Your task to perform on an android device: Play the last video I watched on Youtube Image 0: 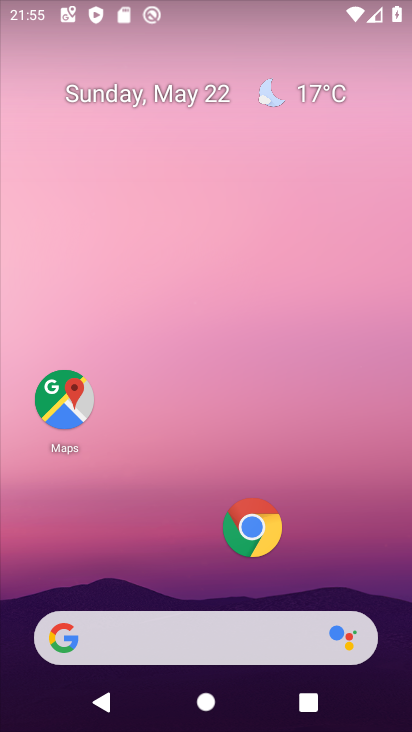
Step 0: drag from (351, 556) to (125, 2)
Your task to perform on an android device: Play the last video I watched on Youtube Image 1: 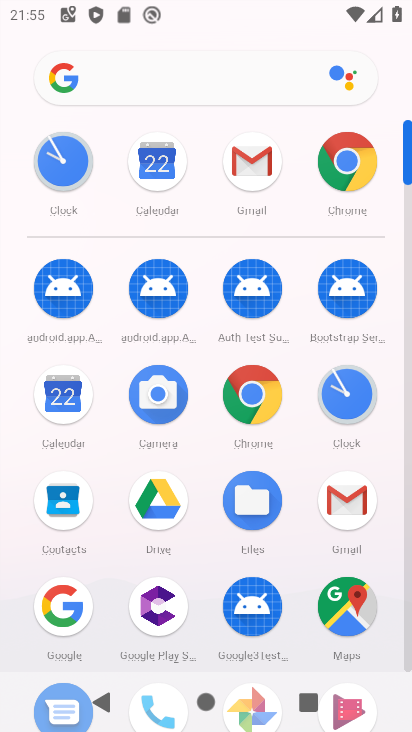
Step 1: click (409, 668)
Your task to perform on an android device: Play the last video I watched on Youtube Image 2: 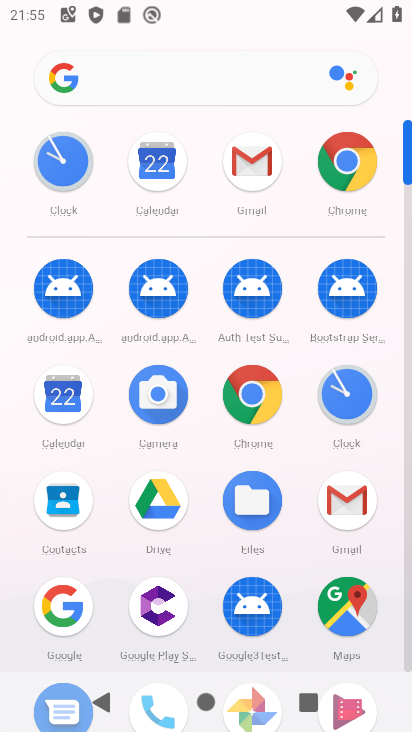
Step 2: click (409, 668)
Your task to perform on an android device: Play the last video I watched on Youtube Image 3: 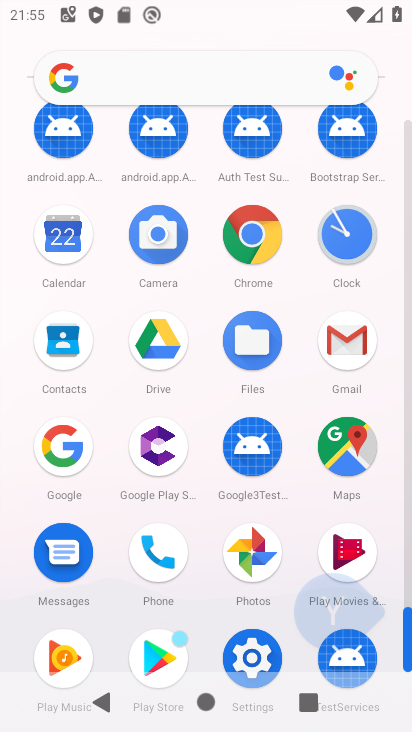
Step 3: click (409, 668)
Your task to perform on an android device: Play the last video I watched on Youtube Image 4: 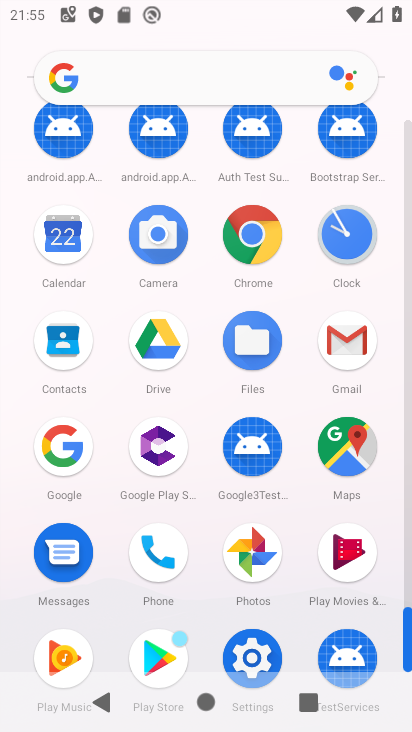
Step 4: click (409, 668)
Your task to perform on an android device: Play the last video I watched on Youtube Image 5: 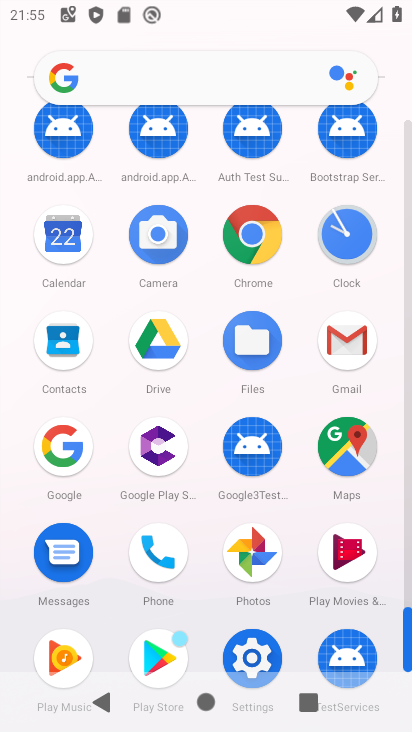
Step 5: click (409, 668)
Your task to perform on an android device: Play the last video I watched on Youtube Image 6: 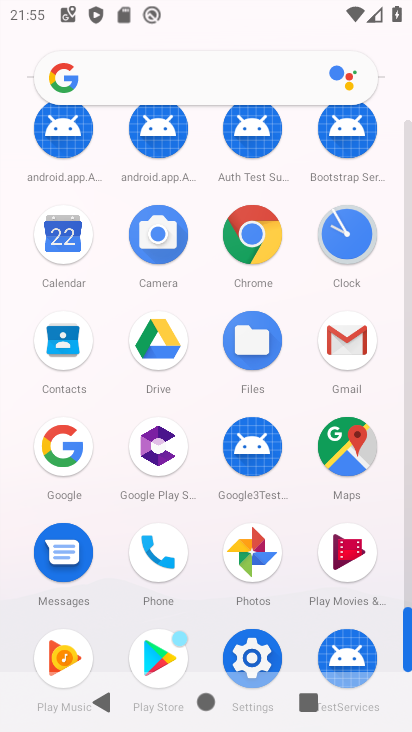
Step 6: drag from (214, 591) to (189, 254)
Your task to perform on an android device: Play the last video I watched on Youtube Image 7: 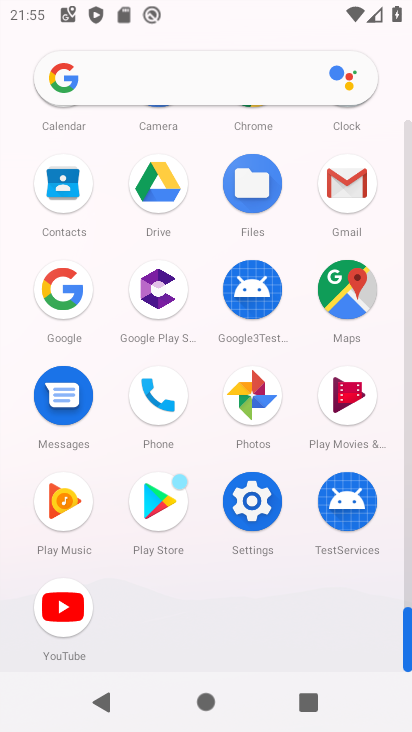
Step 7: click (60, 611)
Your task to perform on an android device: Play the last video I watched on Youtube Image 8: 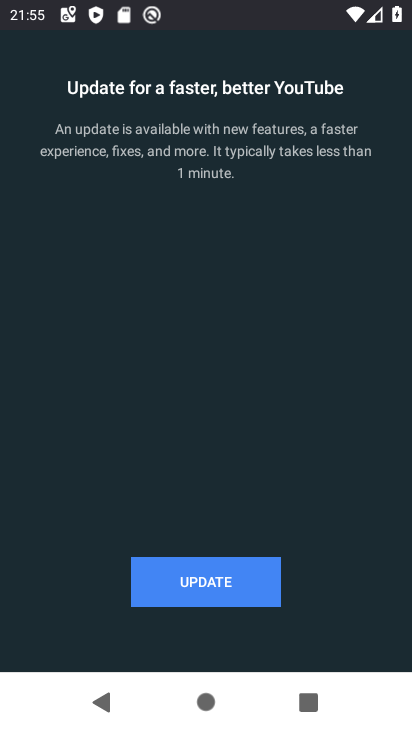
Step 8: click (212, 586)
Your task to perform on an android device: Play the last video I watched on Youtube Image 9: 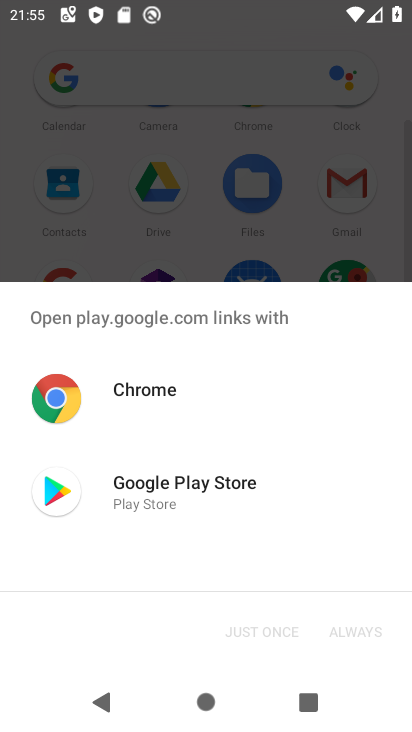
Step 9: click (144, 486)
Your task to perform on an android device: Play the last video I watched on Youtube Image 10: 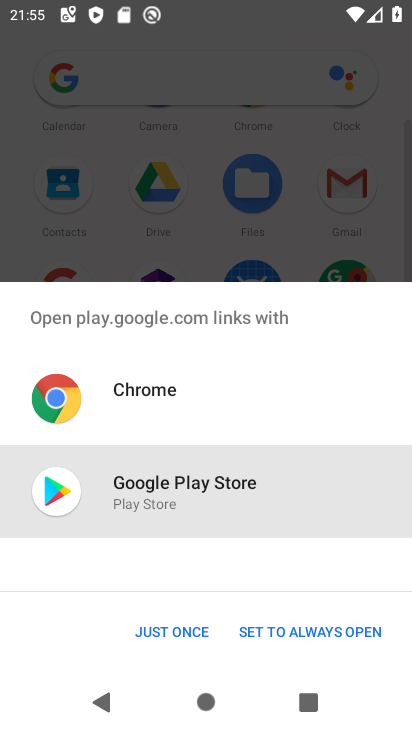
Step 10: click (178, 633)
Your task to perform on an android device: Play the last video I watched on Youtube Image 11: 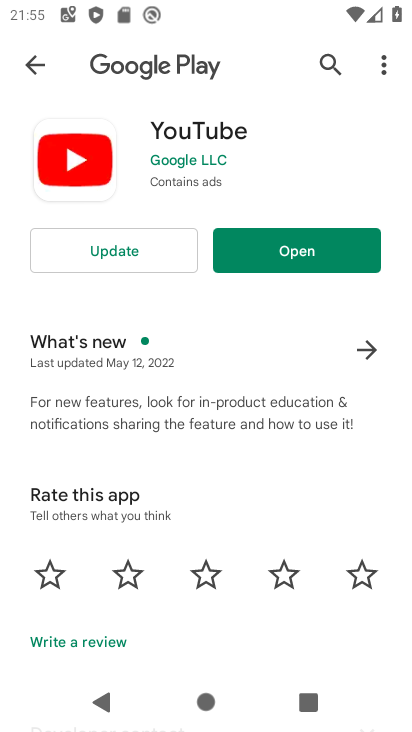
Step 11: click (137, 248)
Your task to perform on an android device: Play the last video I watched on Youtube Image 12: 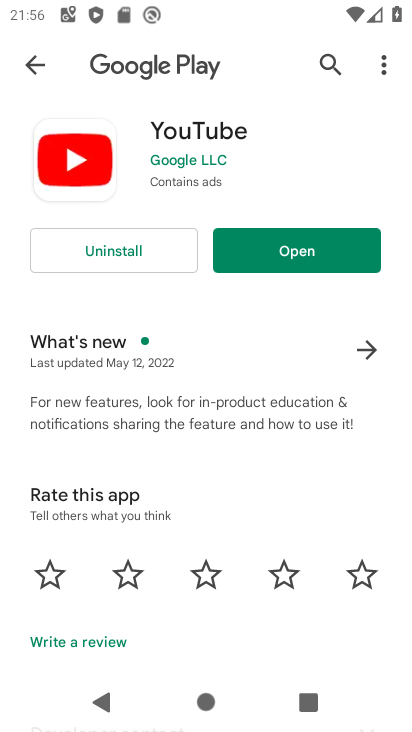
Step 12: click (272, 251)
Your task to perform on an android device: Play the last video I watched on Youtube Image 13: 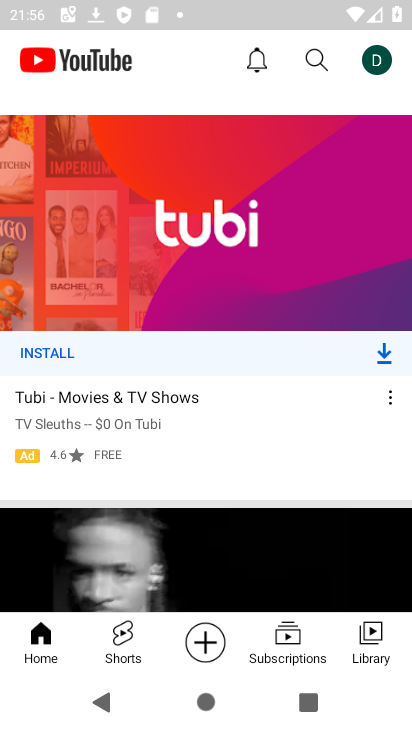
Step 13: click (374, 627)
Your task to perform on an android device: Play the last video I watched on Youtube Image 14: 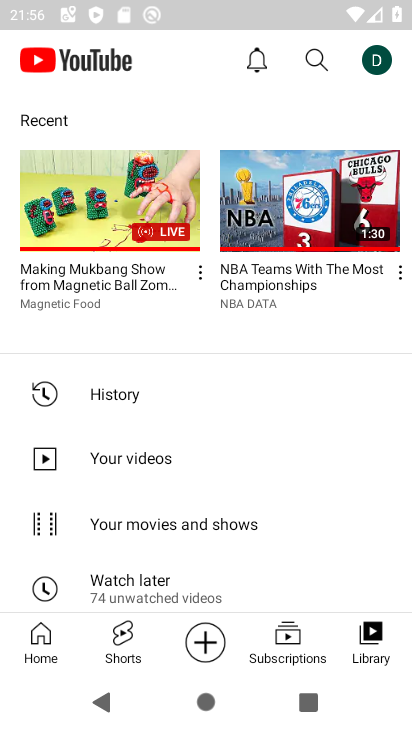
Step 14: click (112, 213)
Your task to perform on an android device: Play the last video I watched on Youtube Image 15: 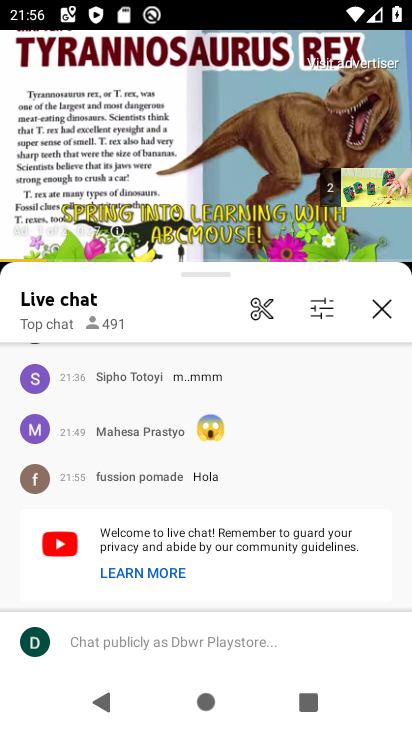
Step 15: task complete